Your task to perform on an android device: Show me recent news Image 0: 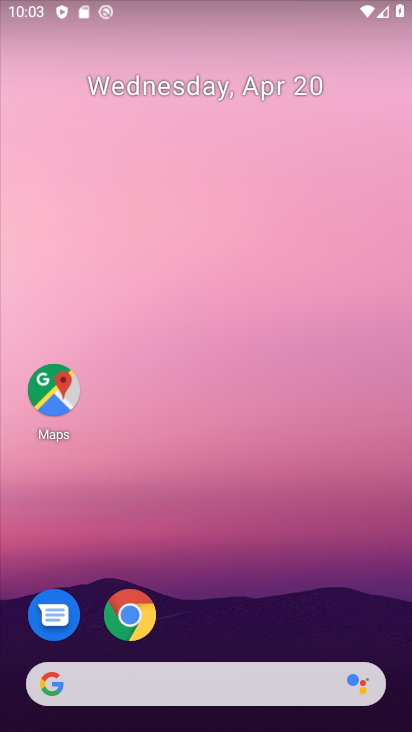
Step 0: click (130, 613)
Your task to perform on an android device: Show me recent news Image 1: 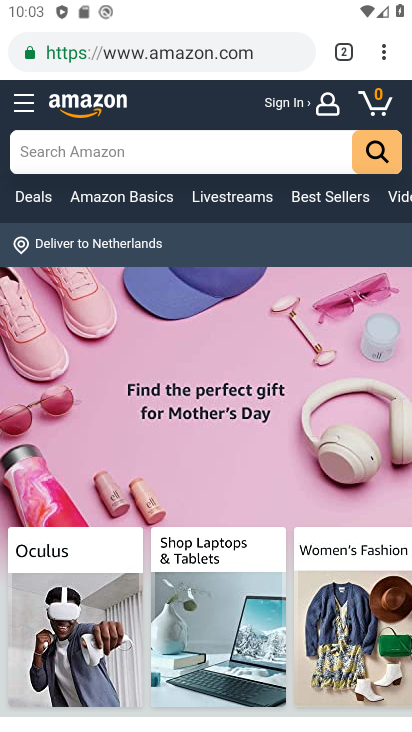
Step 1: click (344, 52)
Your task to perform on an android device: Show me recent news Image 2: 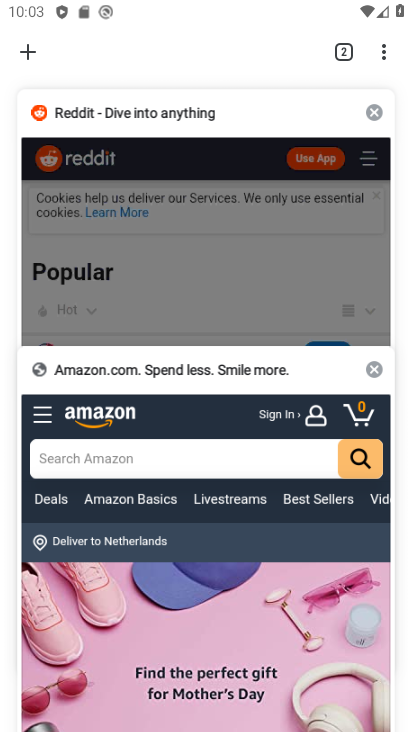
Step 2: click (26, 48)
Your task to perform on an android device: Show me recent news Image 3: 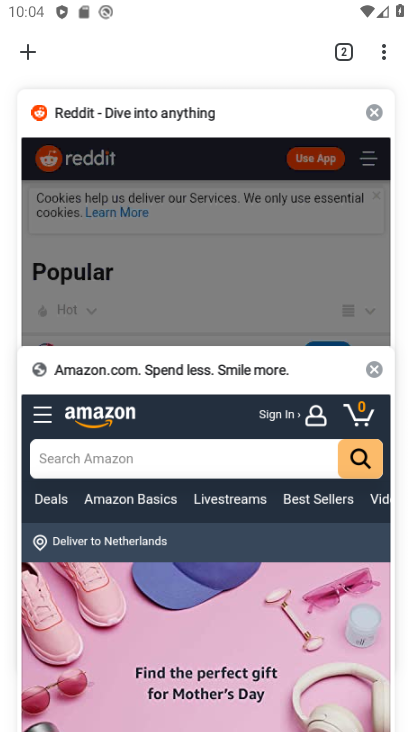
Step 3: click (26, 47)
Your task to perform on an android device: Show me recent news Image 4: 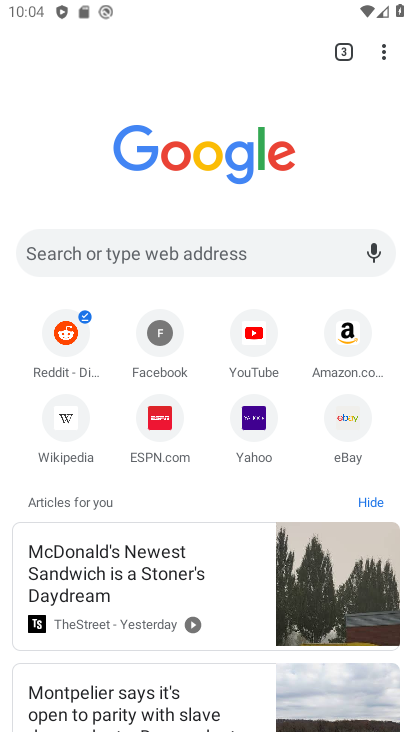
Step 4: click (137, 255)
Your task to perform on an android device: Show me recent news Image 5: 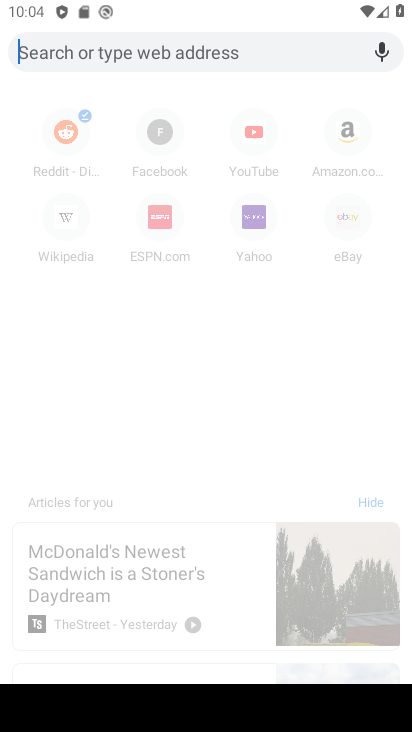
Step 5: type "recent news"
Your task to perform on an android device: Show me recent news Image 6: 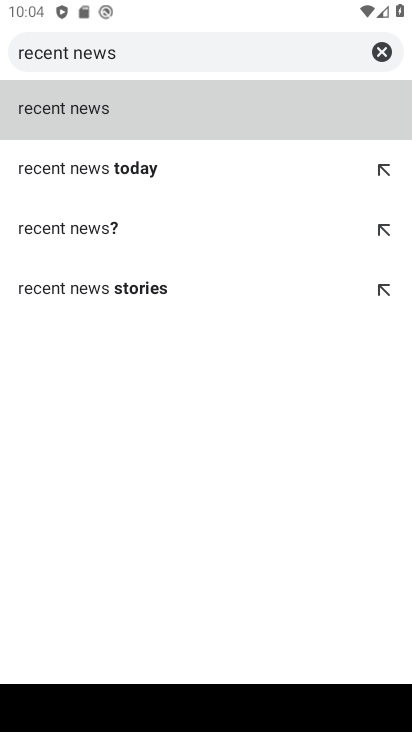
Step 6: click (201, 130)
Your task to perform on an android device: Show me recent news Image 7: 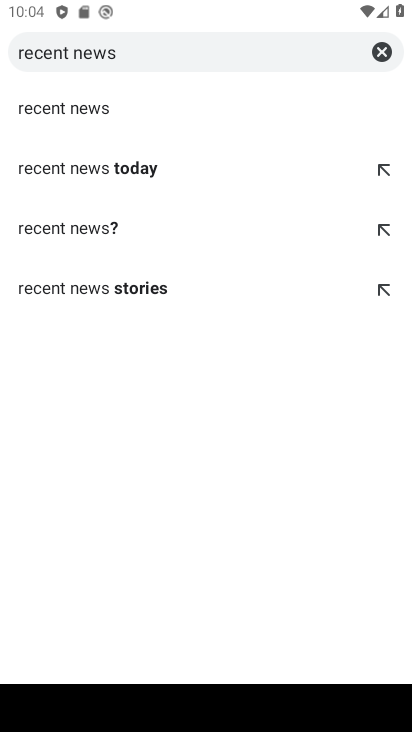
Step 7: click (97, 111)
Your task to perform on an android device: Show me recent news Image 8: 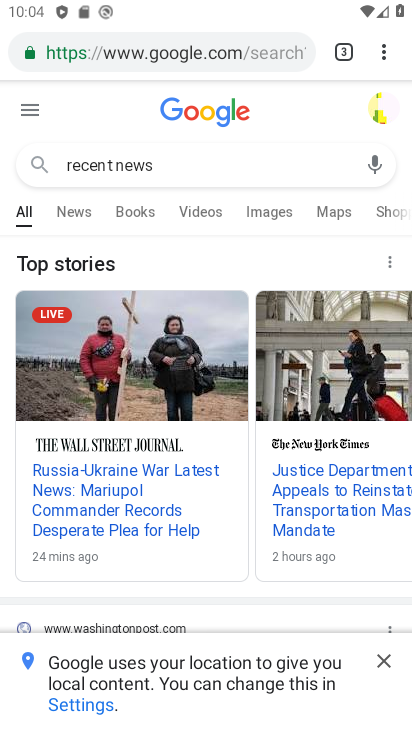
Step 8: click (90, 206)
Your task to perform on an android device: Show me recent news Image 9: 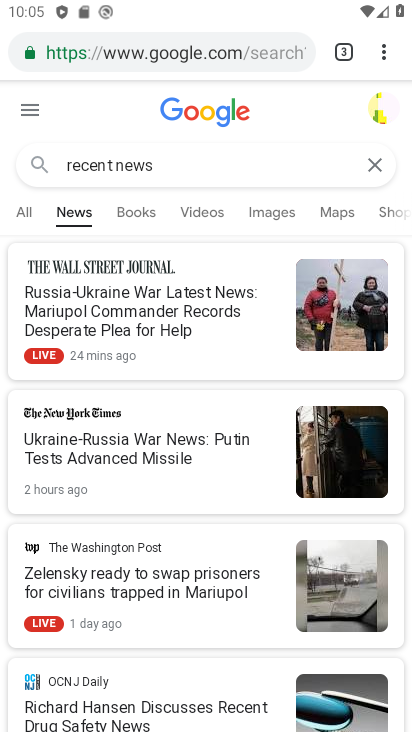
Step 9: task complete